Your task to perform on an android device: Go to network settings Image 0: 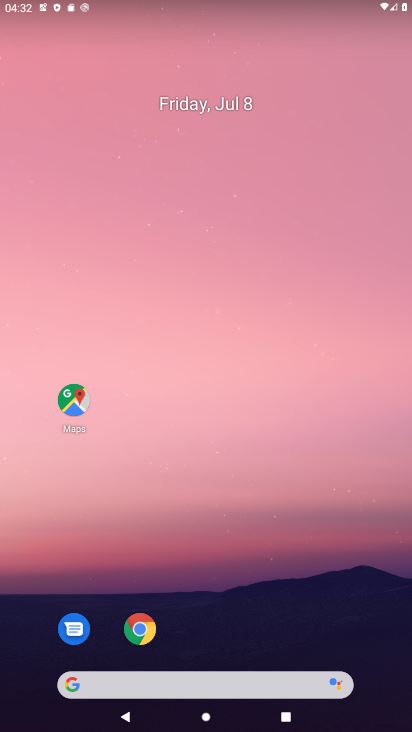
Step 0: drag from (243, 690) to (232, 129)
Your task to perform on an android device: Go to network settings Image 1: 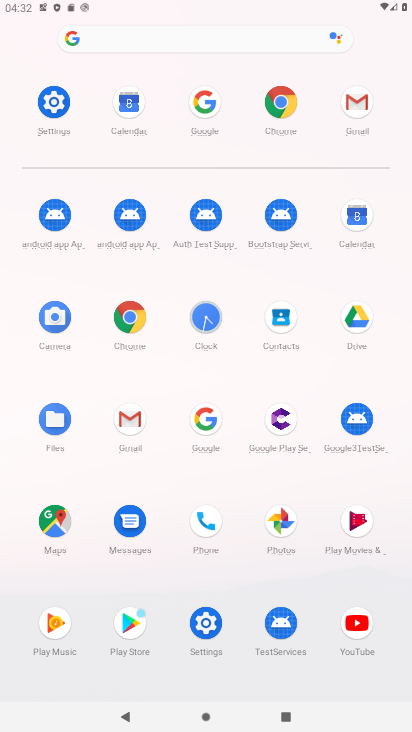
Step 1: click (51, 101)
Your task to perform on an android device: Go to network settings Image 2: 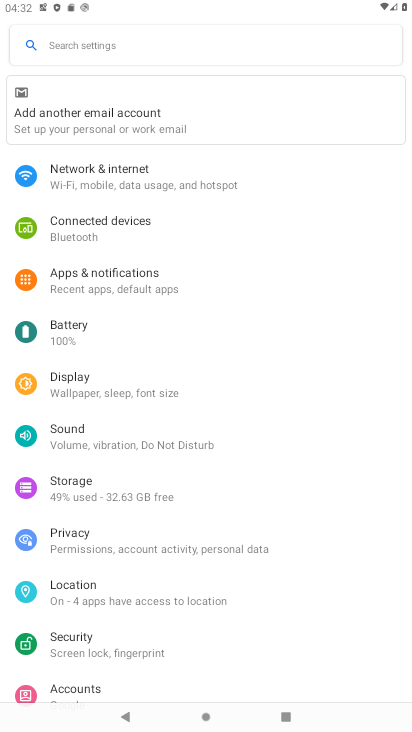
Step 2: click (98, 172)
Your task to perform on an android device: Go to network settings Image 3: 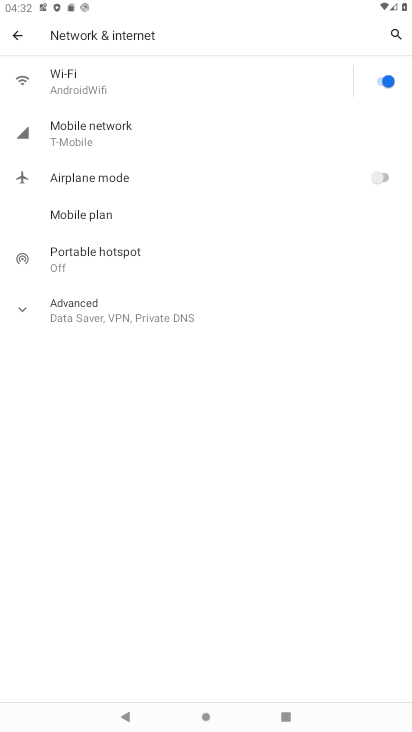
Step 3: task complete